Your task to perform on an android device: turn notification dots off Image 0: 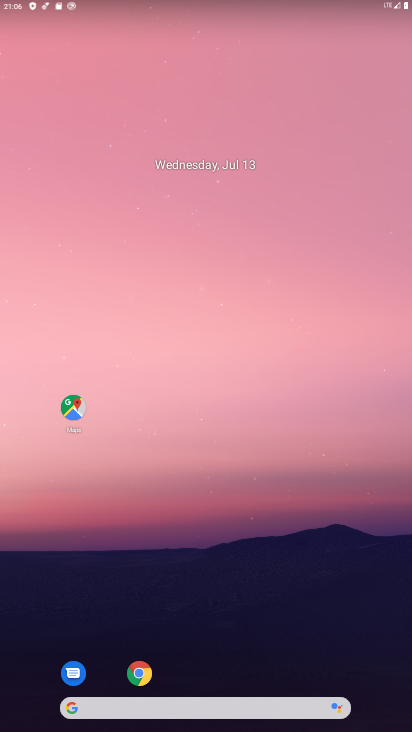
Step 0: drag from (209, 592) to (241, 342)
Your task to perform on an android device: turn notification dots off Image 1: 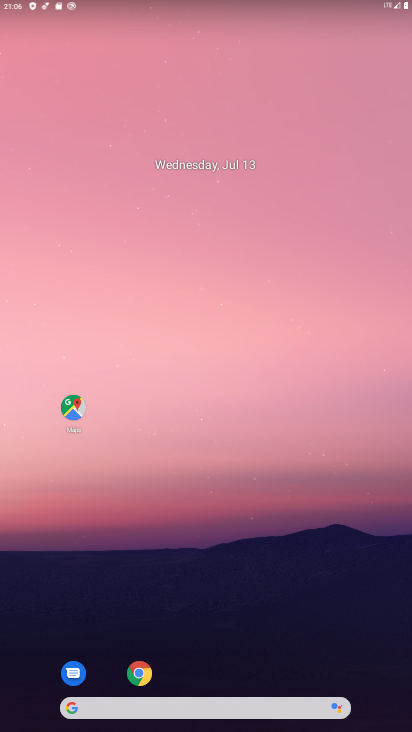
Step 1: drag from (198, 684) to (224, 158)
Your task to perform on an android device: turn notification dots off Image 2: 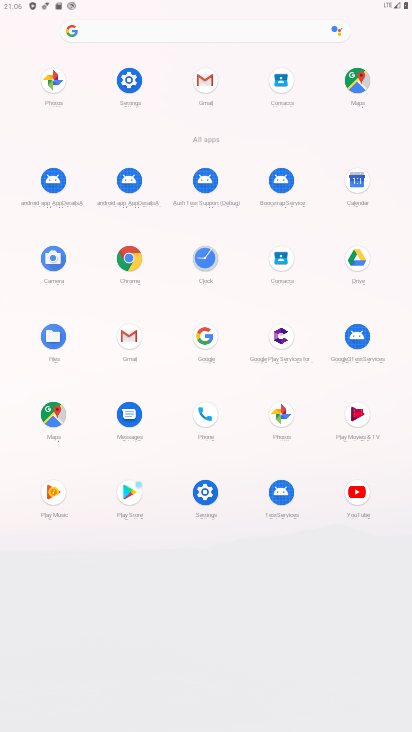
Step 2: click (198, 492)
Your task to perform on an android device: turn notification dots off Image 3: 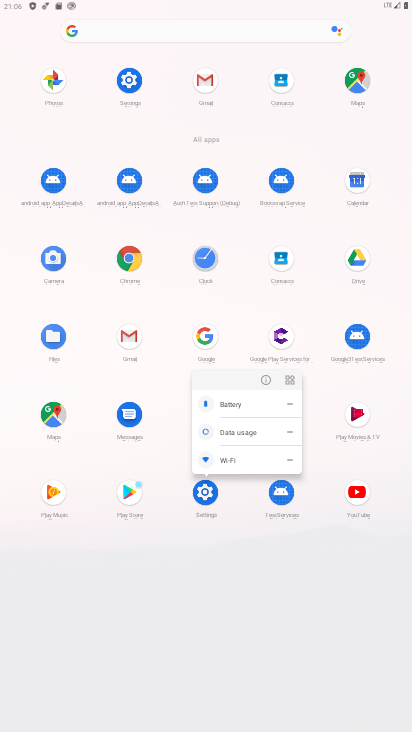
Step 3: click (267, 381)
Your task to perform on an android device: turn notification dots off Image 4: 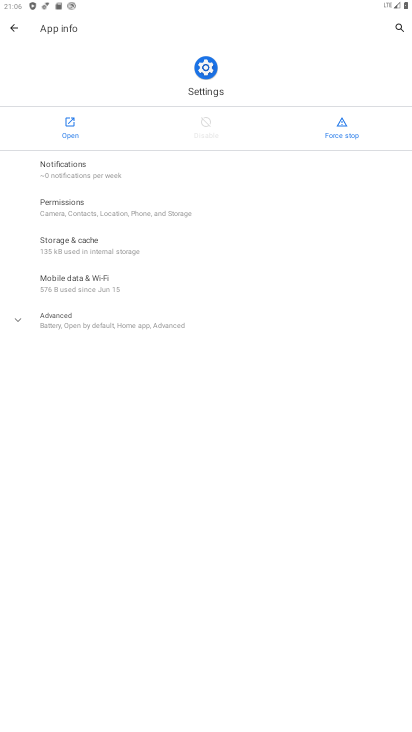
Step 4: click (67, 129)
Your task to perform on an android device: turn notification dots off Image 5: 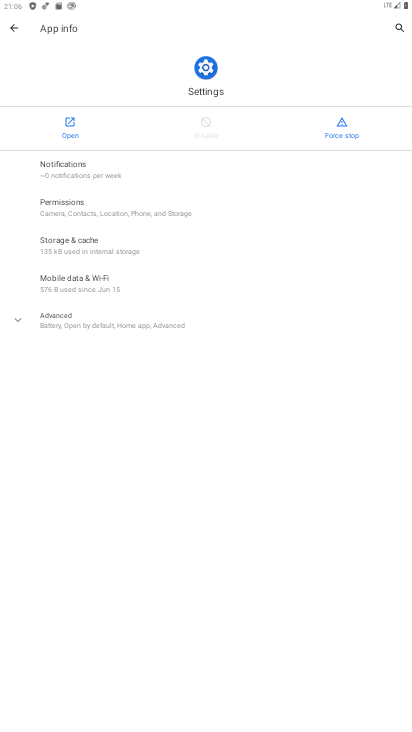
Step 5: click (65, 128)
Your task to perform on an android device: turn notification dots off Image 6: 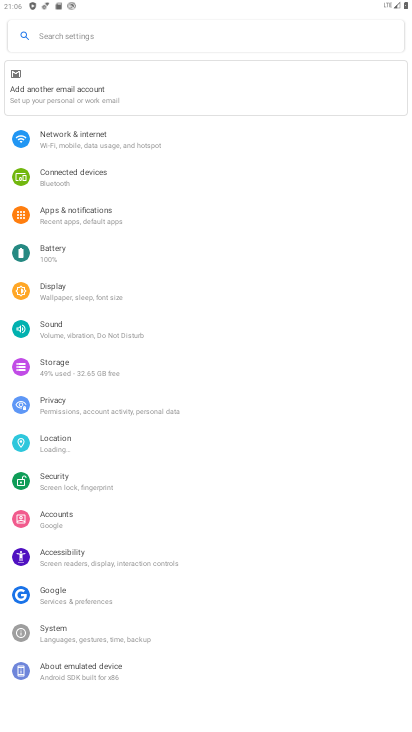
Step 6: drag from (224, 582) to (284, 201)
Your task to perform on an android device: turn notification dots off Image 7: 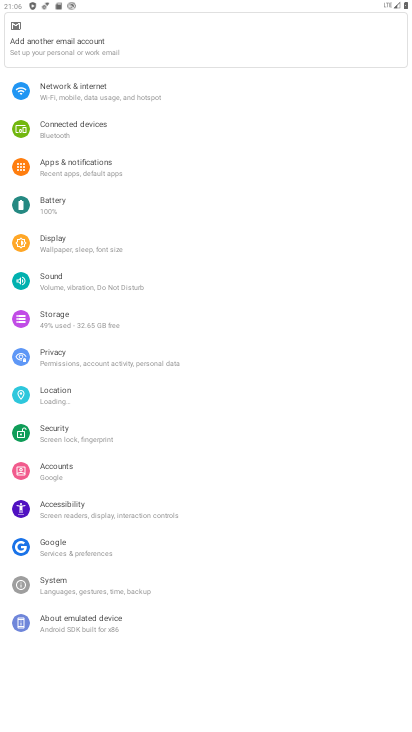
Step 7: click (98, 163)
Your task to perform on an android device: turn notification dots off Image 8: 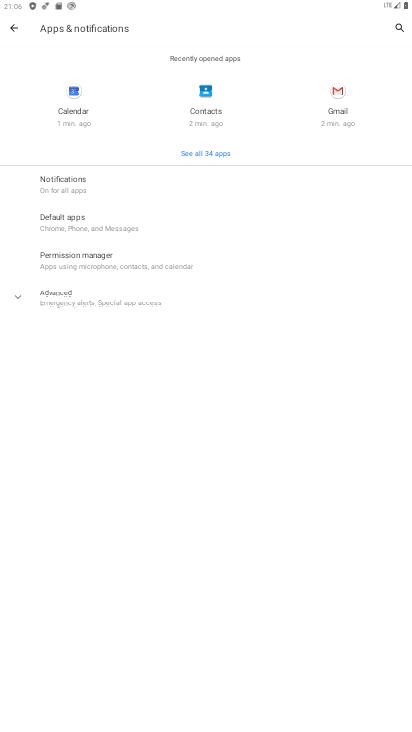
Step 8: click (105, 192)
Your task to perform on an android device: turn notification dots off Image 9: 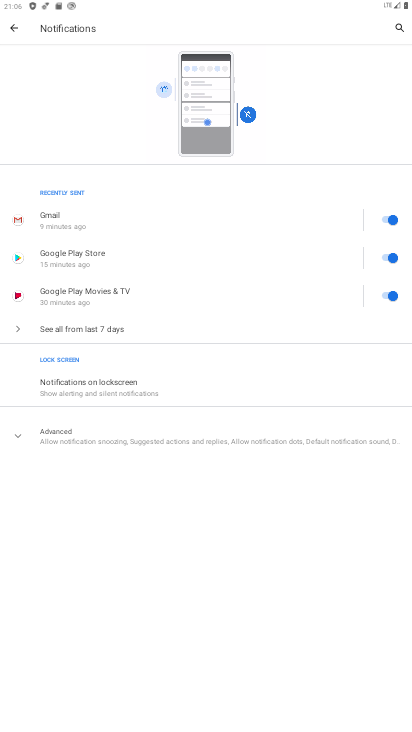
Step 9: drag from (206, 551) to (232, 263)
Your task to perform on an android device: turn notification dots off Image 10: 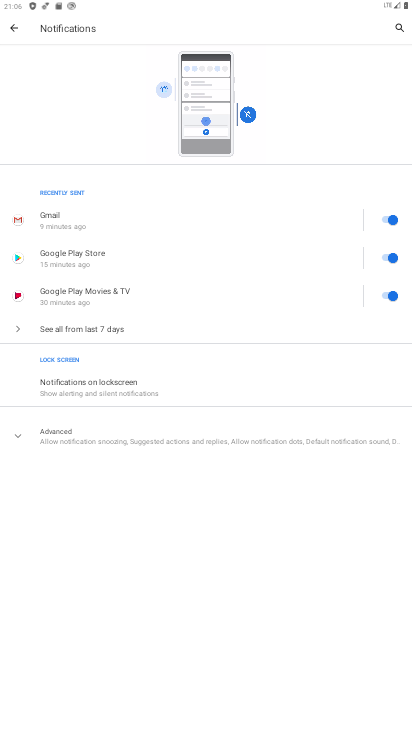
Step 10: click (81, 444)
Your task to perform on an android device: turn notification dots off Image 11: 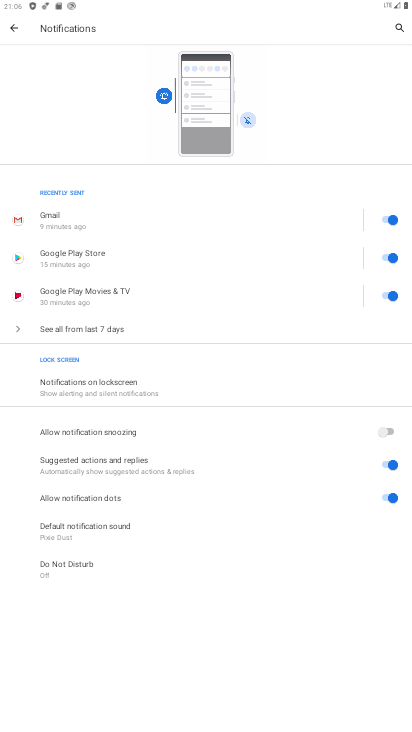
Step 11: drag from (210, 589) to (230, 413)
Your task to perform on an android device: turn notification dots off Image 12: 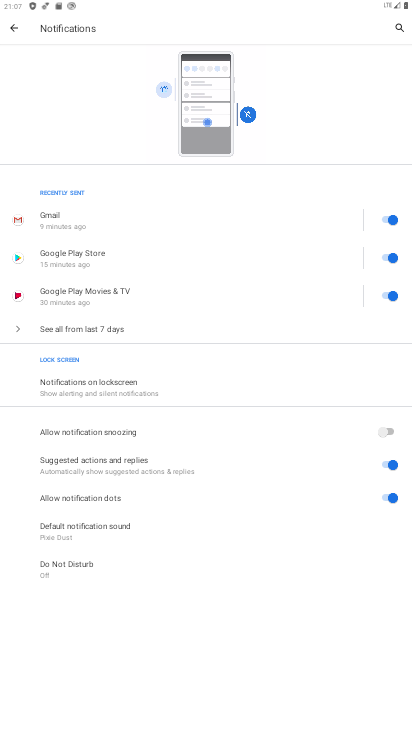
Step 12: click (386, 492)
Your task to perform on an android device: turn notification dots off Image 13: 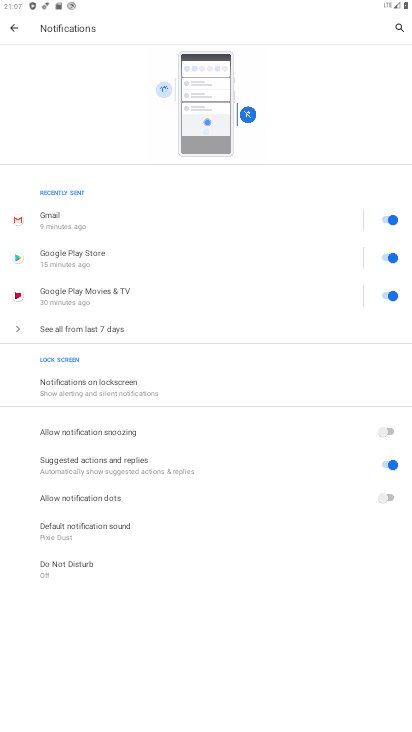
Step 13: task complete